Your task to perform on an android device: set an alarm Image 0: 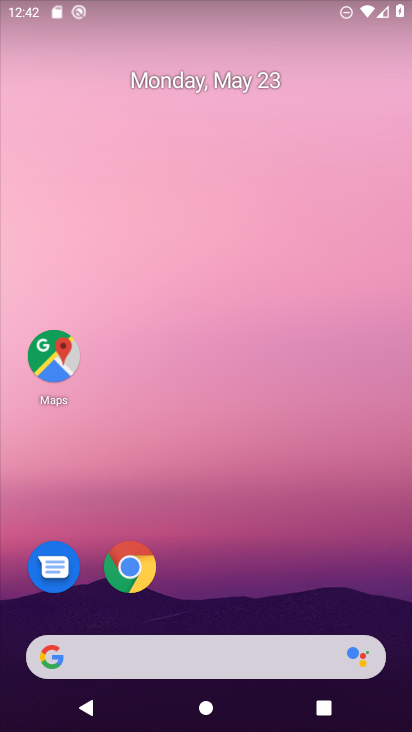
Step 0: drag from (185, 602) to (208, 278)
Your task to perform on an android device: set an alarm Image 1: 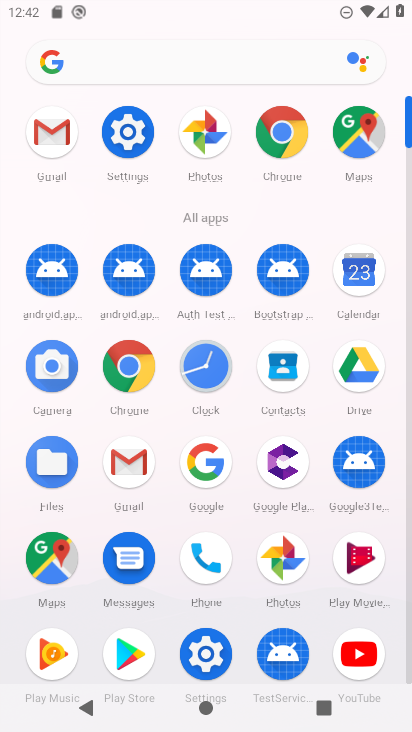
Step 1: click (203, 367)
Your task to perform on an android device: set an alarm Image 2: 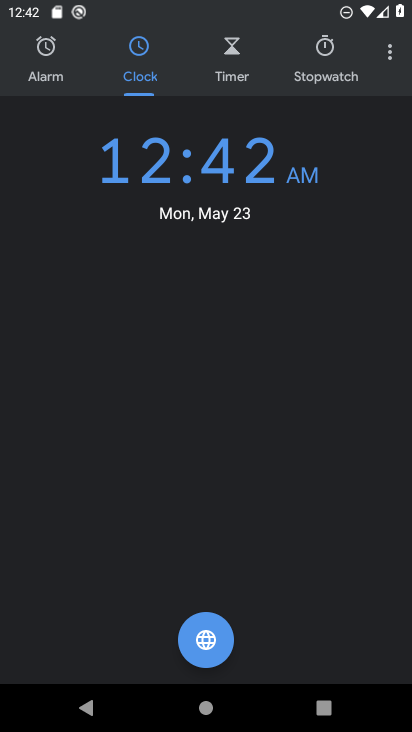
Step 2: click (59, 68)
Your task to perform on an android device: set an alarm Image 3: 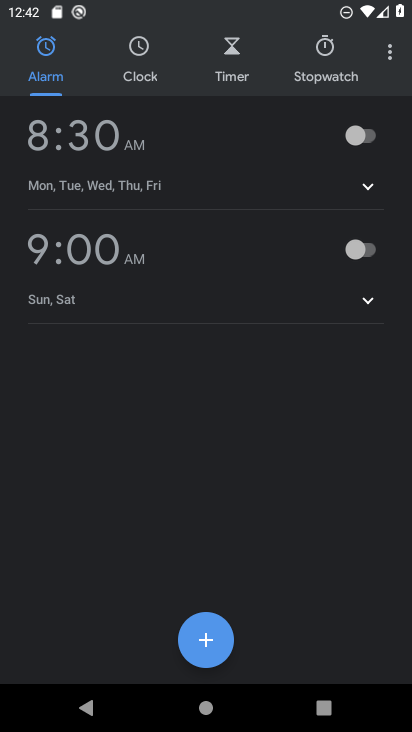
Step 3: click (369, 133)
Your task to perform on an android device: set an alarm Image 4: 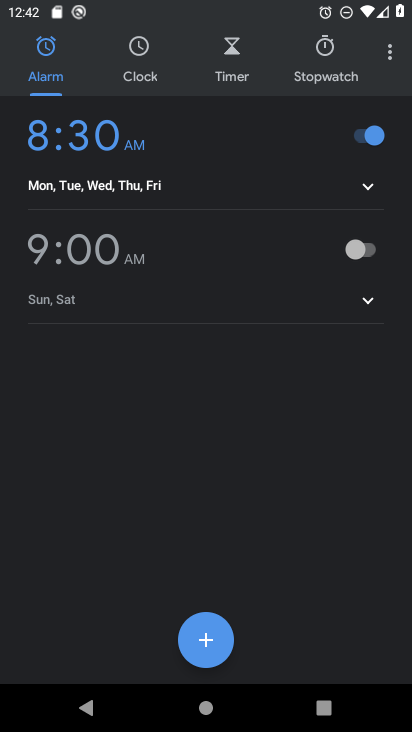
Step 4: task complete